Your task to perform on an android device: Show me productivity apps on the Play Store Image 0: 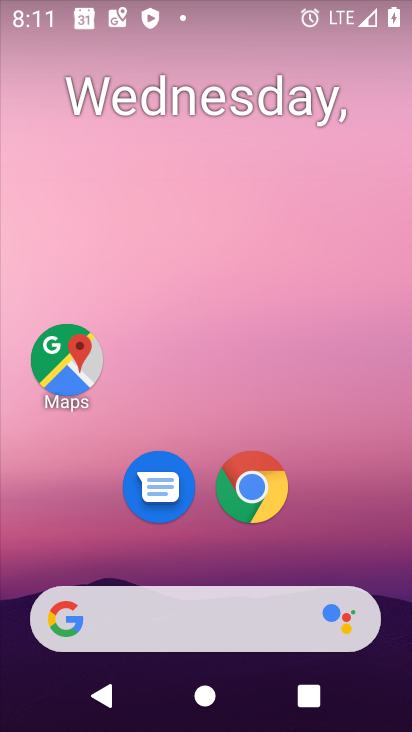
Step 0: drag from (356, 564) to (328, 13)
Your task to perform on an android device: Show me productivity apps on the Play Store Image 1: 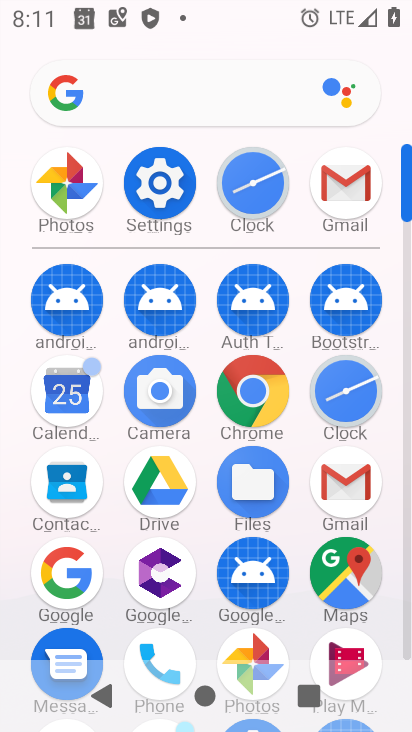
Step 1: click (406, 515)
Your task to perform on an android device: Show me productivity apps on the Play Store Image 2: 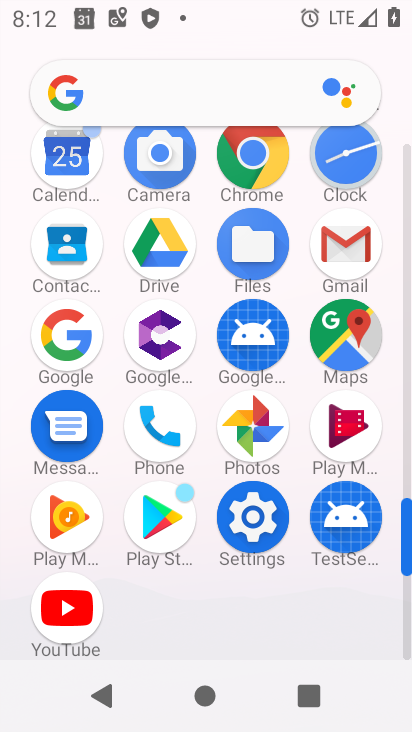
Step 2: click (158, 521)
Your task to perform on an android device: Show me productivity apps on the Play Store Image 3: 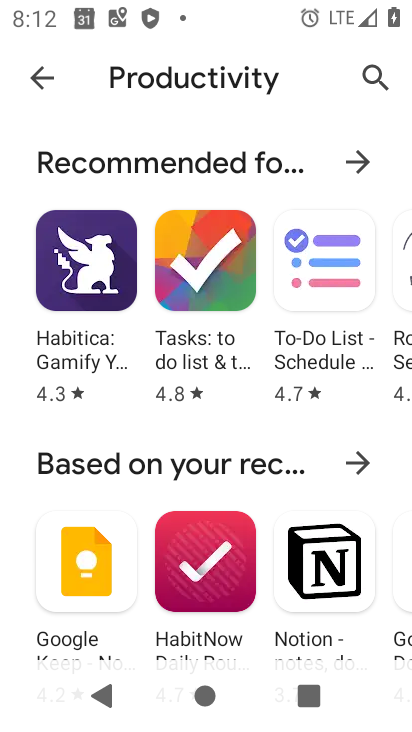
Step 3: task complete